Your task to perform on an android device: check battery use Image 0: 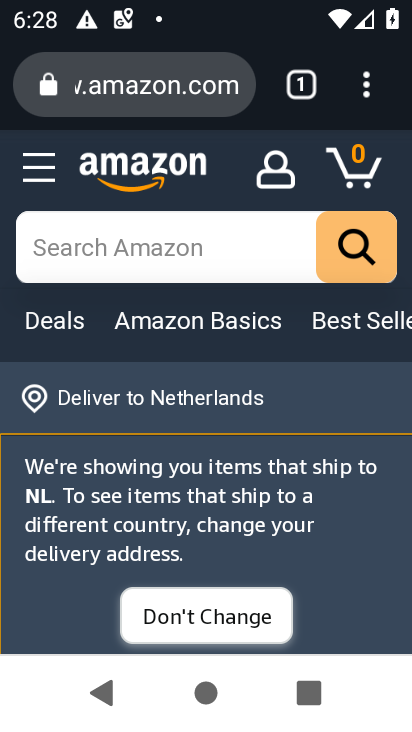
Step 0: click (366, 92)
Your task to perform on an android device: check battery use Image 1: 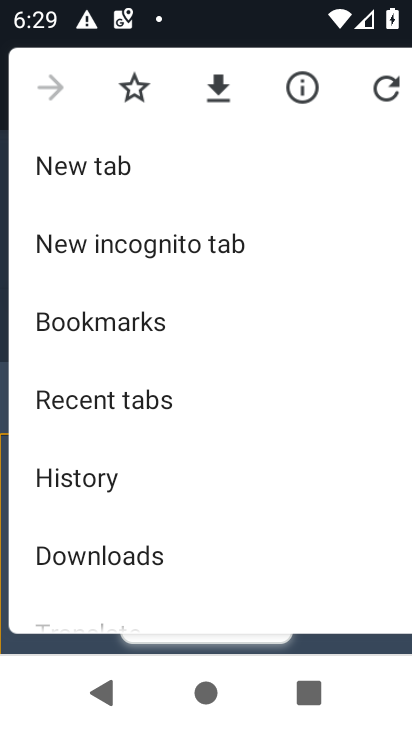
Step 1: press home button
Your task to perform on an android device: check battery use Image 2: 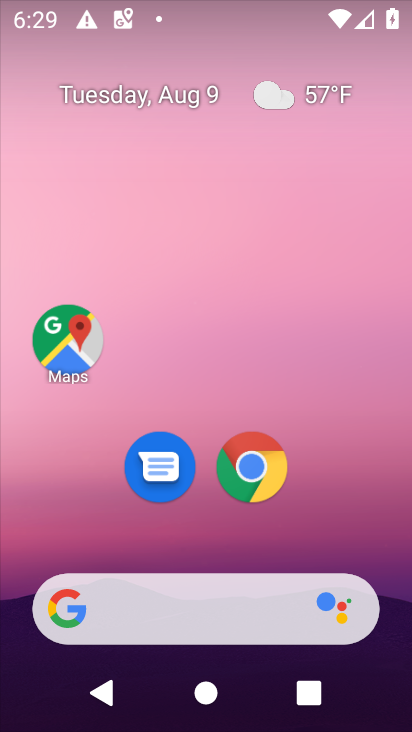
Step 2: drag from (200, 499) to (156, 178)
Your task to perform on an android device: check battery use Image 3: 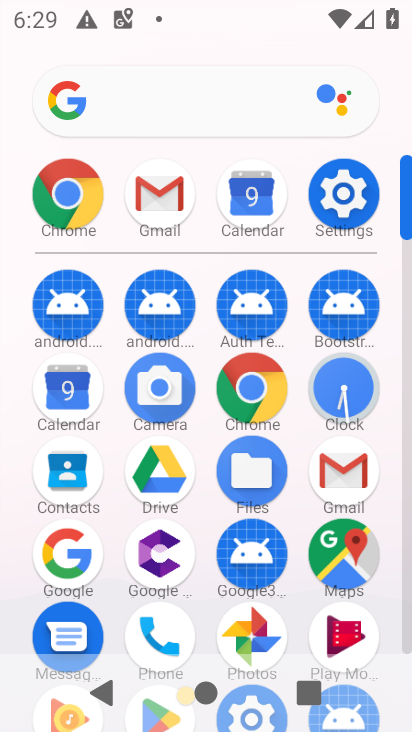
Step 3: click (339, 198)
Your task to perform on an android device: check battery use Image 4: 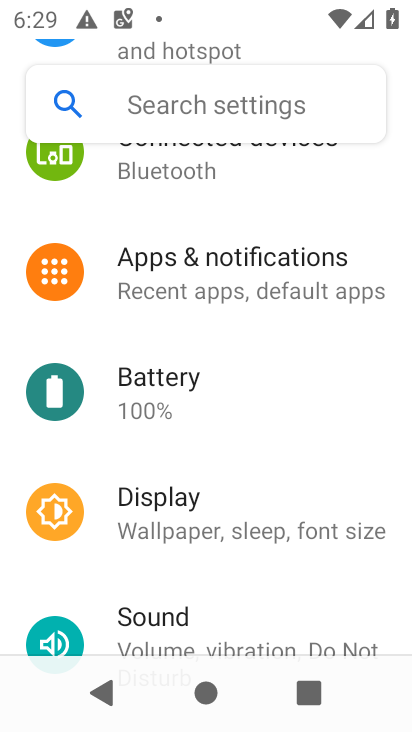
Step 4: click (175, 392)
Your task to perform on an android device: check battery use Image 5: 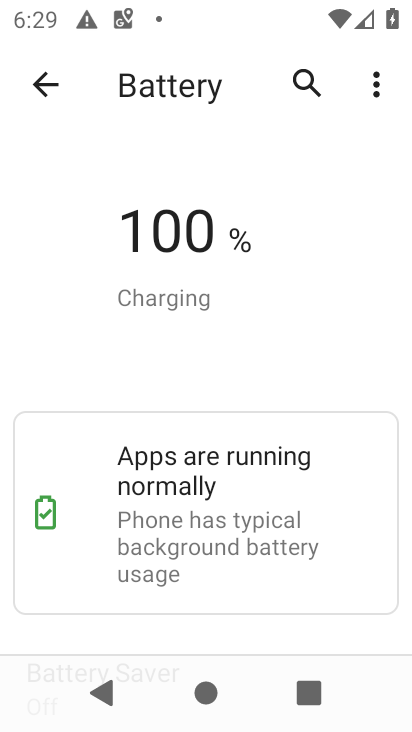
Step 5: task complete